Your task to perform on an android device: toggle airplane mode Image 0: 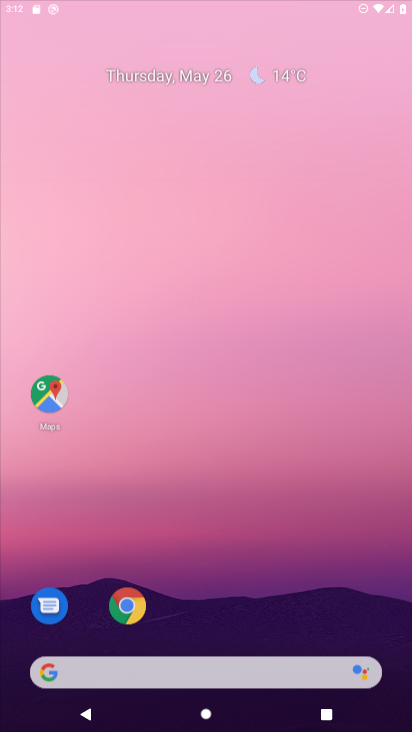
Step 0: drag from (301, 615) to (271, 26)
Your task to perform on an android device: toggle airplane mode Image 1: 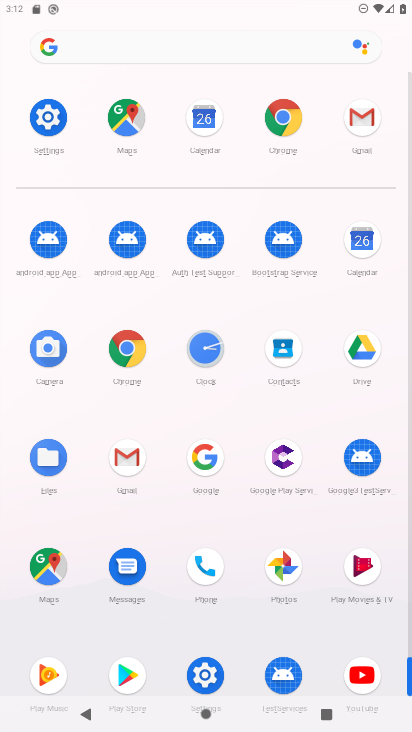
Step 1: click (58, 126)
Your task to perform on an android device: toggle airplane mode Image 2: 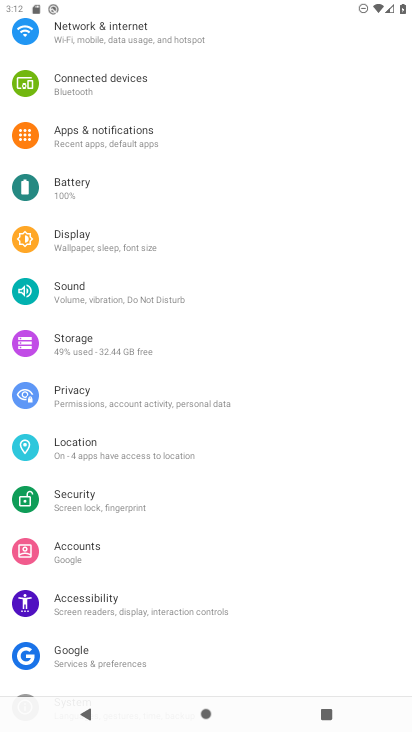
Step 2: drag from (128, 105) to (116, 549)
Your task to perform on an android device: toggle airplane mode Image 3: 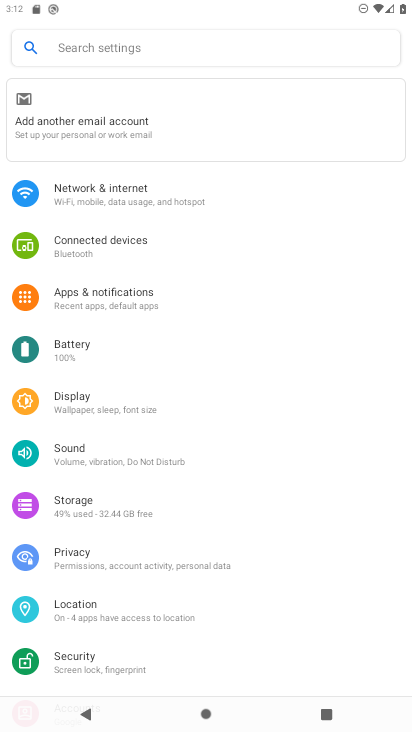
Step 3: click (109, 194)
Your task to perform on an android device: toggle airplane mode Image 4: 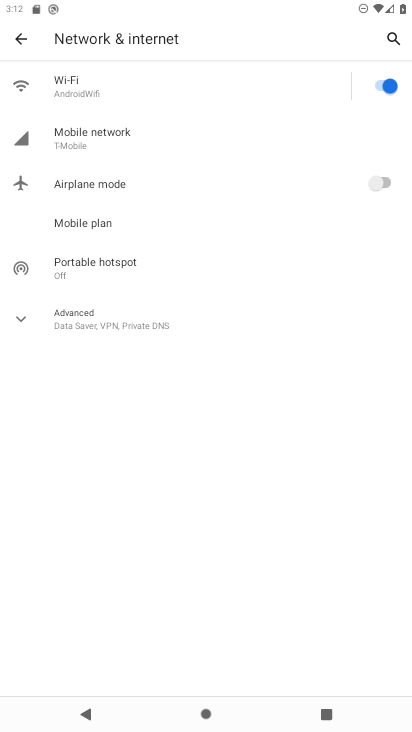
Step 4: click (371, 179)
Your task to perform on an android device: toggle airplane mode Image 5: 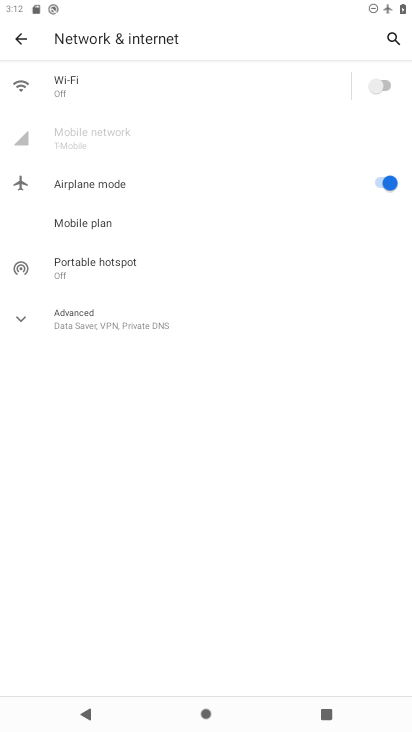
Step 5: task complete